Your task to perform on an android device: search for starred emails in the gmail app Image 0: 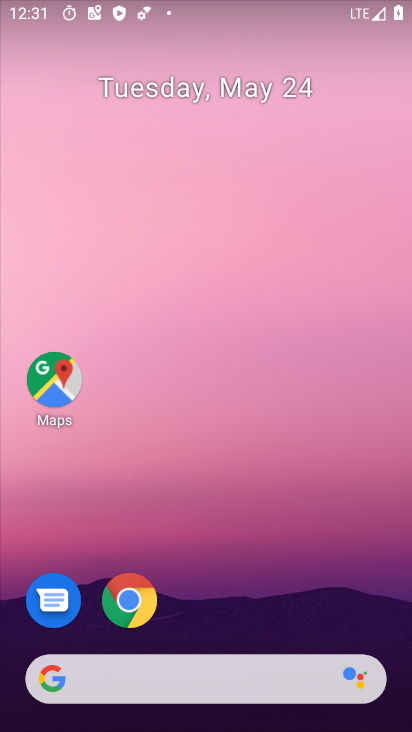
Step 0: drag from (281, 589) to (255, 151)
Your task to perform on an android device: search for starred emails in the gmail app Image 1: 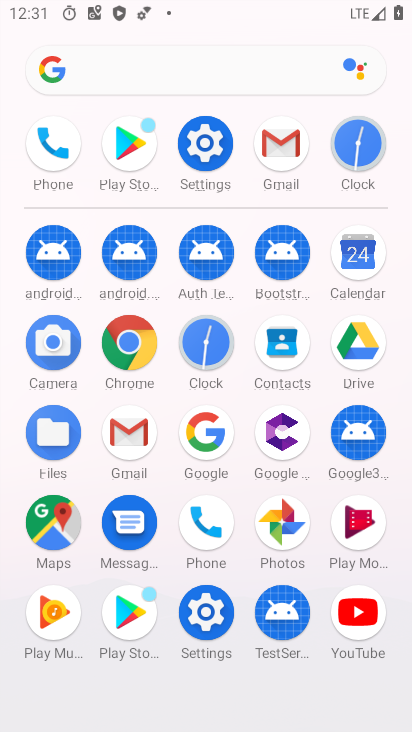
Step 1: click (273, 145)
Your task to perform on an android device: search for starred emails in the gmail app Image 2: 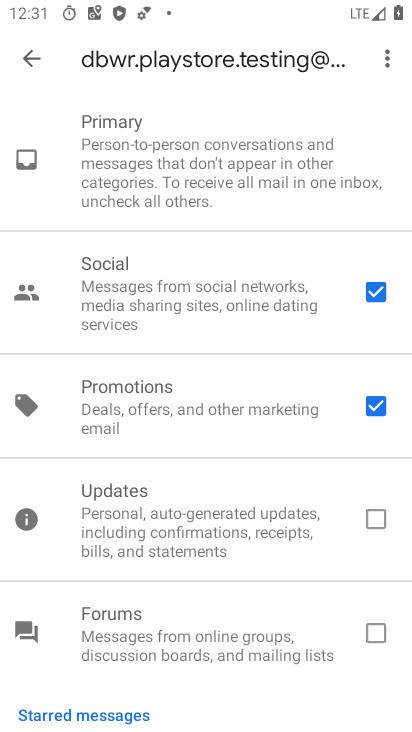
Step 2: click (30, 70)
Your task to perform on an android device: search for starred emails in the gmail app Image 3: 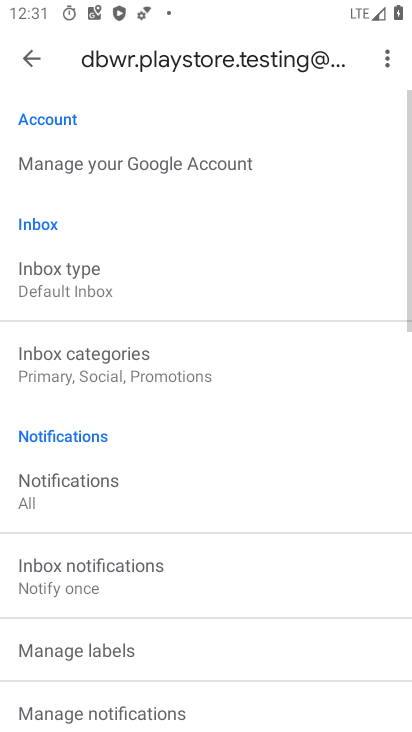
Step 3: click (35, 62)
Your task to perform on an android device: search for starred emails in the gmail app Image 4: 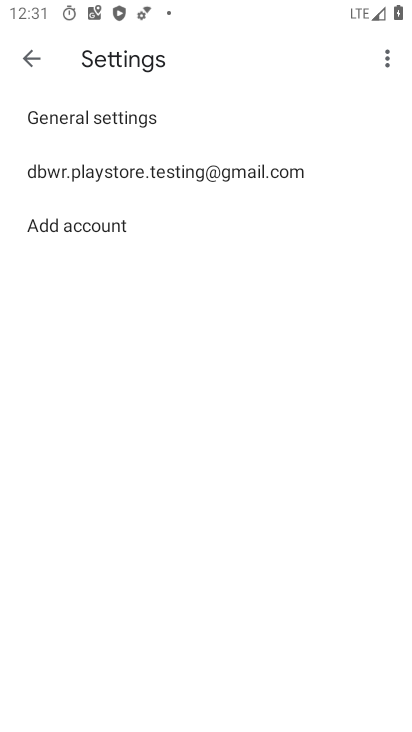
Step 4: click (35, 62)
Your task to perform on an android device: search for starred emails in the gmail app Image 5: 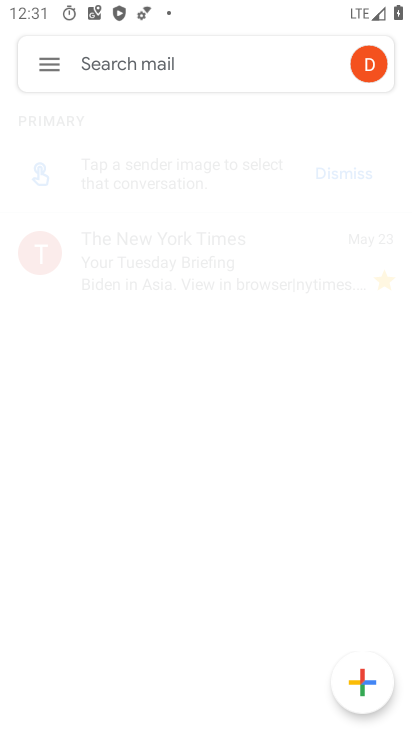
Step 5: click (35, 62)
Your task to perform on an android device: search for starred emails in the gmail app Image 6: 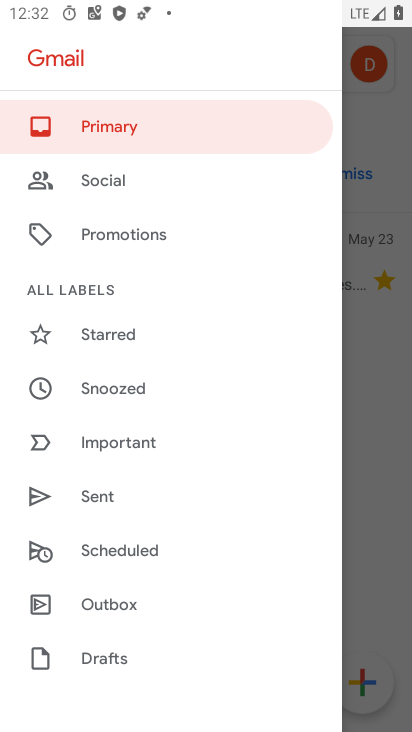
Step 6: click (110, 341)
Your task to perform on an android device: search for starred emails in the gmail app Image 7: 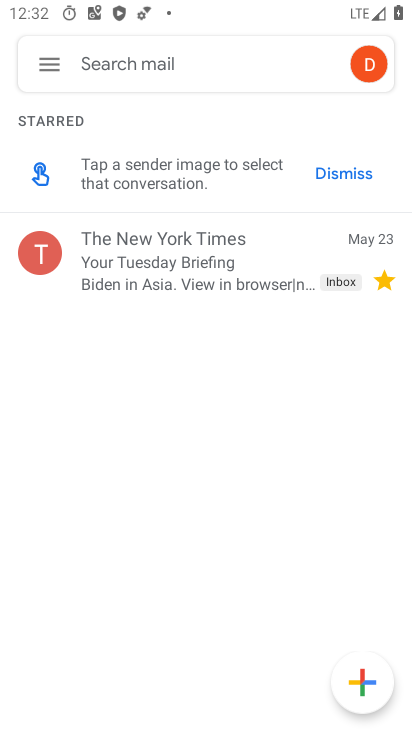
Step 7: task complete